Your task to perform on an android device: Search for Italian restaurants on Maps Image 0: 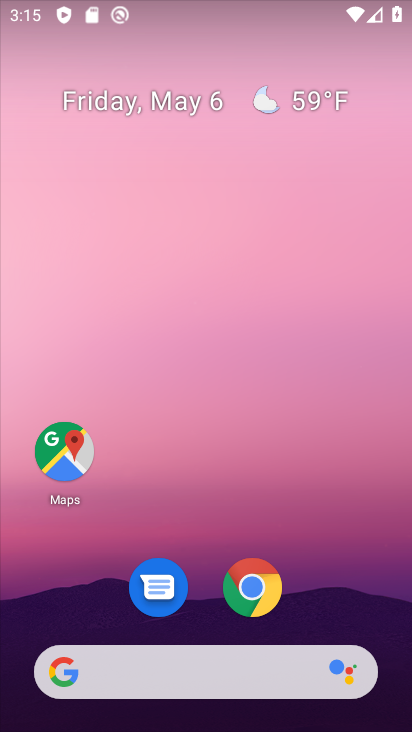
Step 0: drag from (325, 611) to (309, 97)
Your task to perform on an android device: Search for Italian restaurants on Maps Image 1: 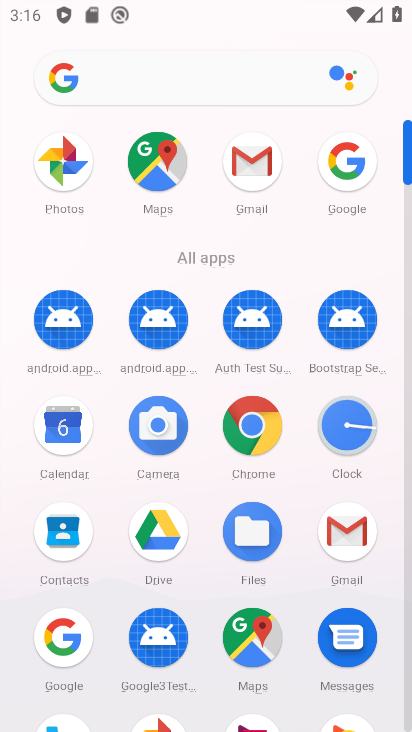
Step 1: click (161, 159)
Your task to perform on an android device: Search for Italian restaurants on Maps Image 2: 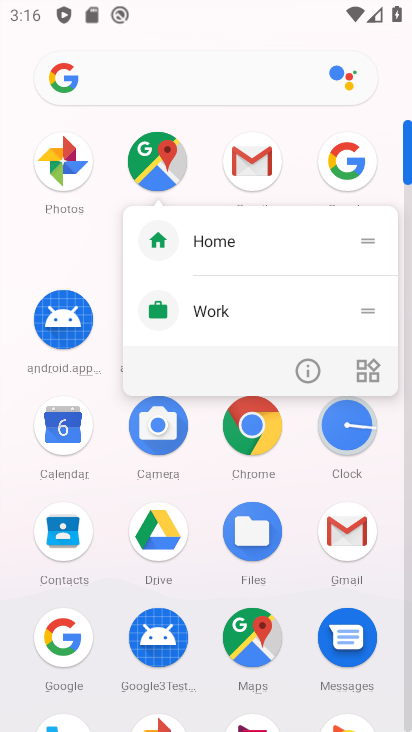
Step 2: click (161, 159)
Your task to perform on an android device: Search for Italian restaurants on Maps Image 3: 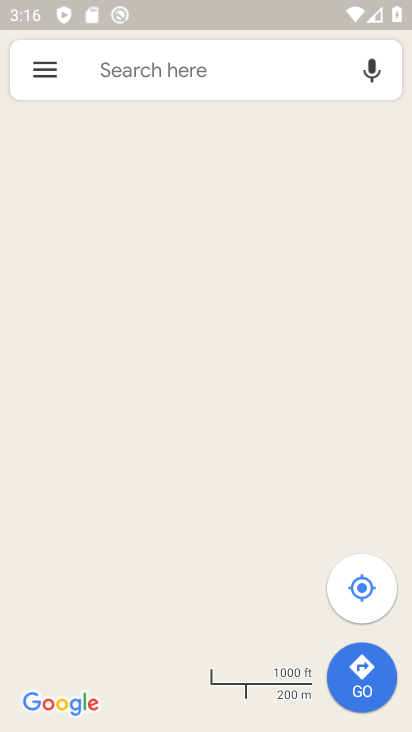
Step 3: click (156, 84)
Your task to perform on an android device: Search for Italian restaurants on Maps Image 4: 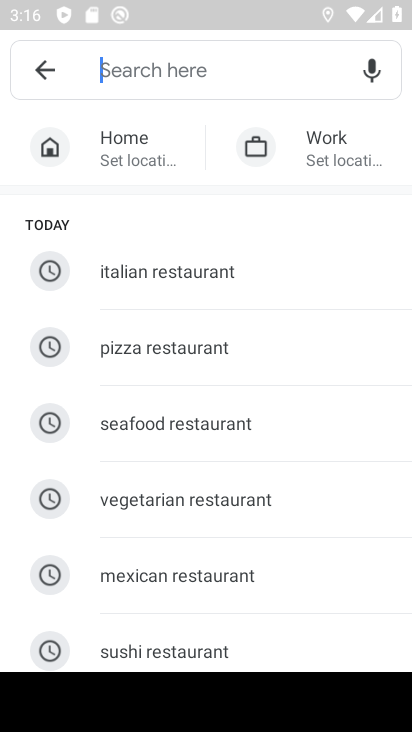
Step 4: type "italian "
Your task to perform on an android device: Search for Italian restaurants on Maps Image 5: 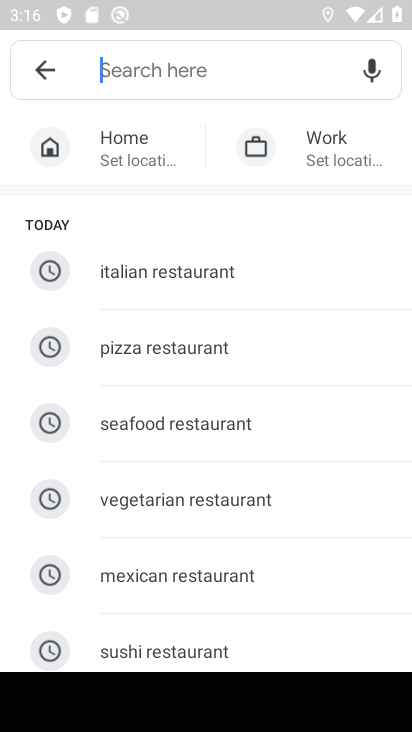
Step 5: click (173, 280)
Your task to perform on an android device: Search for Italian restaurants on Maps Image 6: 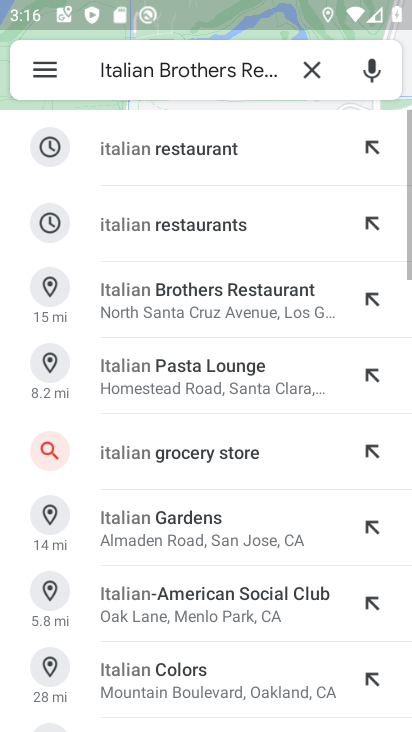
Step 6: click (222, 158)
Your task to perform on an android device: Search for Italian restaurants on Maps Image 7: 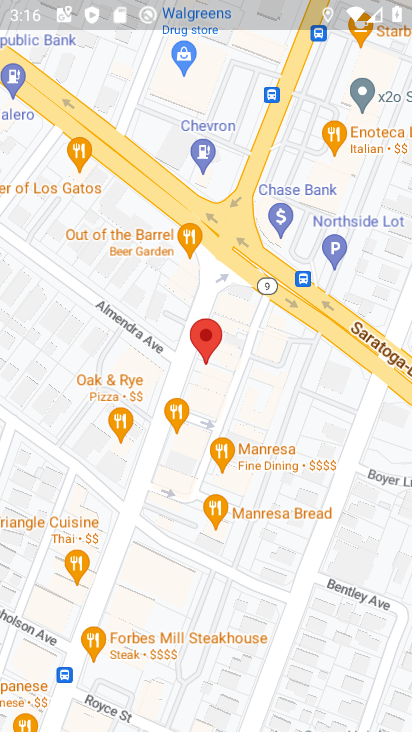
Step 7: task complete